Your task to perform on an android device: turn on translation in the chrome app Image 0: 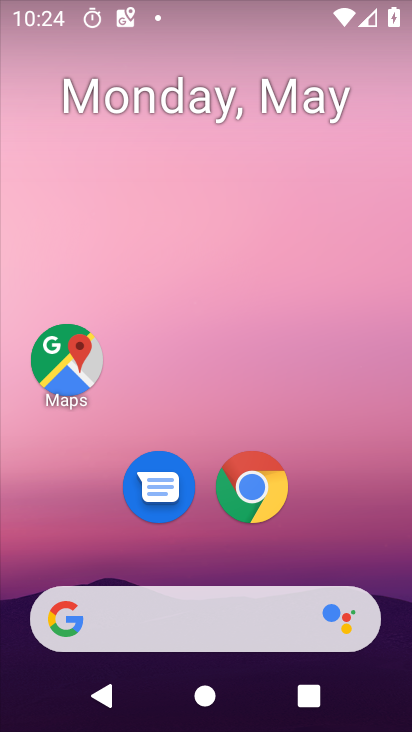
Step 0: click (268, 488)
Your task to perform on an android device: turn on translation in the chrome app Image 1: 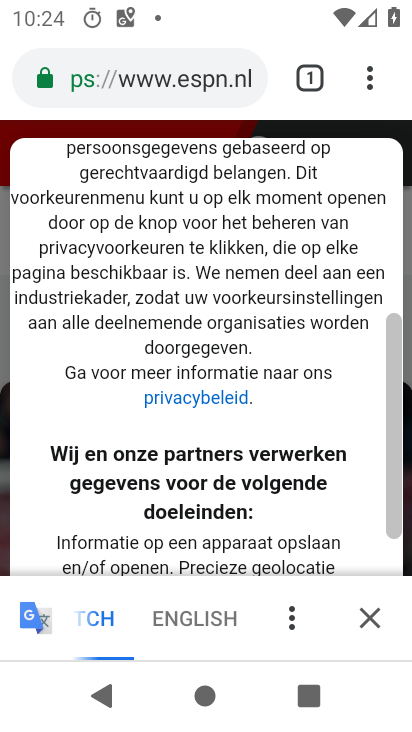
Step 1: click (377, 79)
Your task to perform on an android device: turn on translation in the chrome app Image 2: 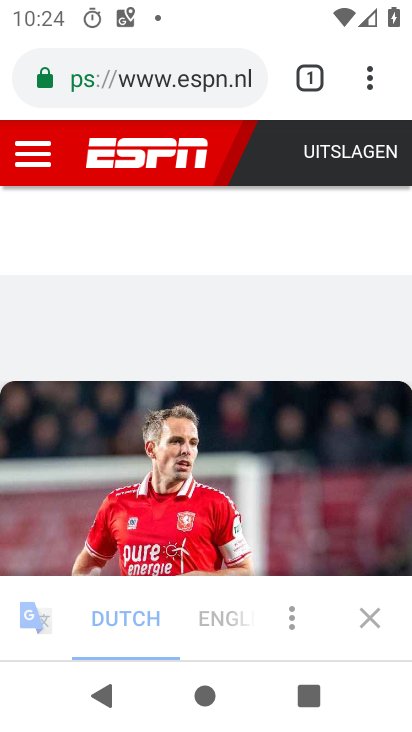
Step 2: click (386, 108)
Your task to perform on an android device: turn on translation in the chrome app Image 3: 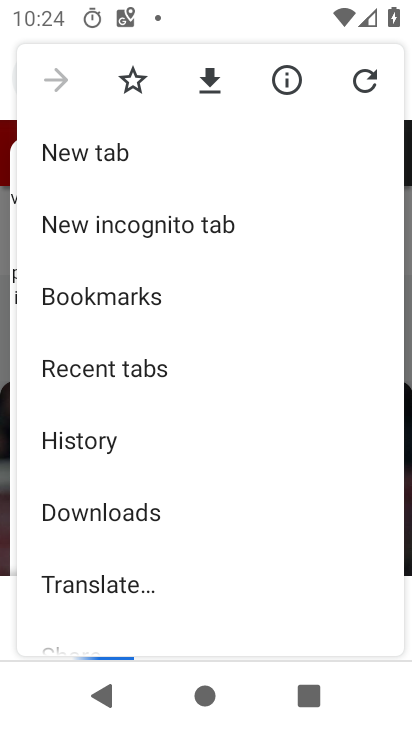
Step 3: drag from (160, 557) to (245, 281)
Your task to perform on an android device: turn on translation in the chrome app Image 4: 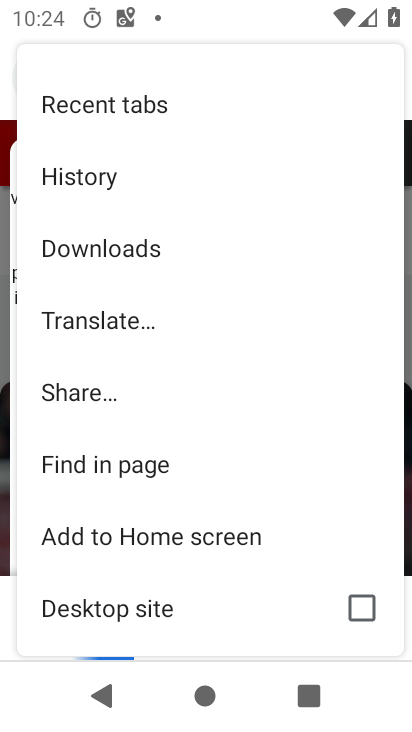
Step 4: drag from (173, 608) to (277, 296)
Your task to perform on an android device: turn on translation in the chrome app Image 5: 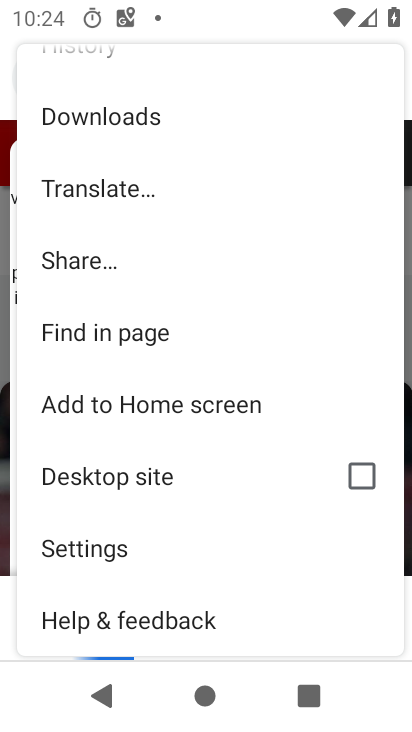
Step 5: click (140, 553)
Your task to perform on an android device: turn on translation in the chrome app Image 6: 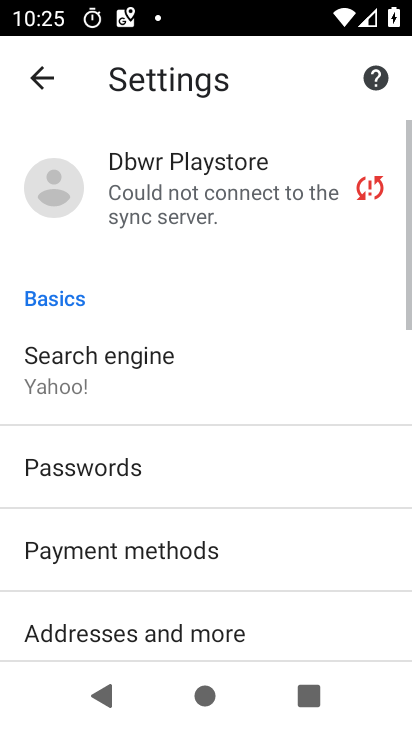
Step 6: drag from (188, 601) to (233, 426)
Your task to perform on an android device: turn on translation in the chrome app Image 7: 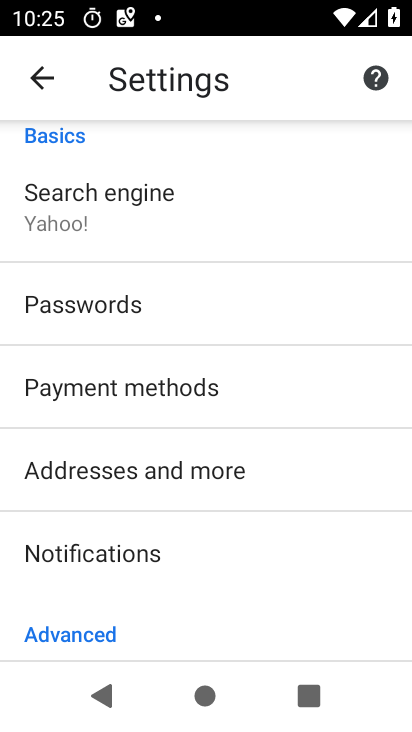
Step 7: drag from (224, 567) to (232, 405)
Your task to perform on an android device: turn on translation in the chrome app Image 8: 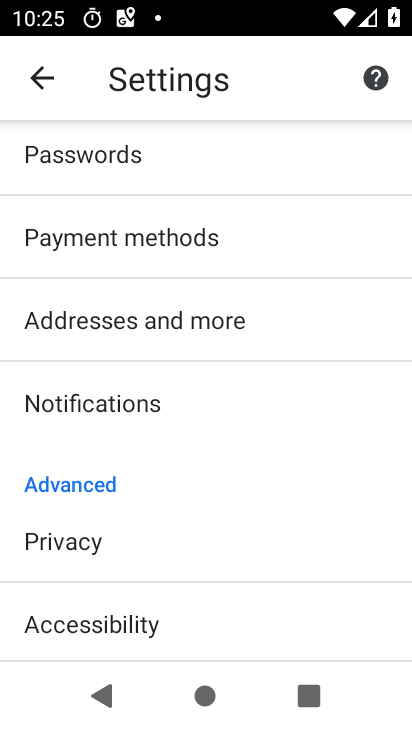
Step 8: drag from (219, 579) to (231, 397)
Your task to perform on an android device: turn on translation in the chrome app Image 9: 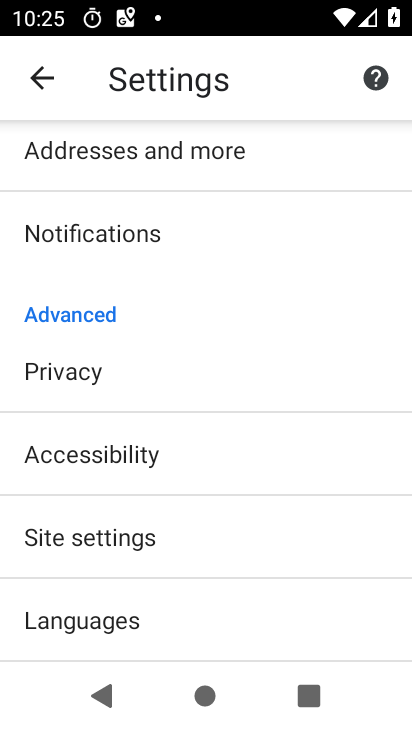
Step 9: click (208, 616)
Your task to perform on an android device: turn on translation in the chrome app Image 10: 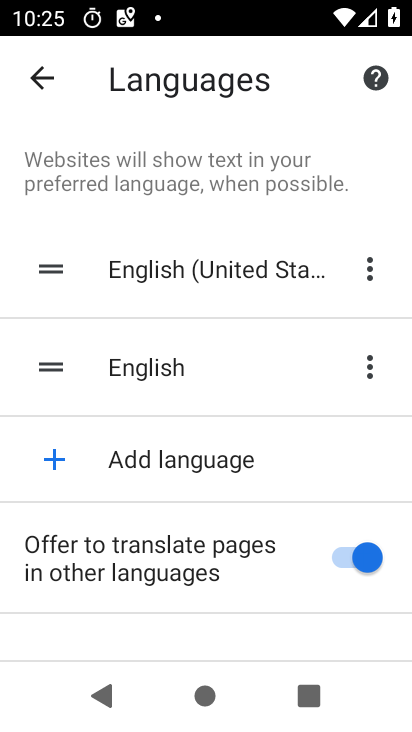
Step 10: task complete